Your task to perform on an android device: Open sound settings Image 0: 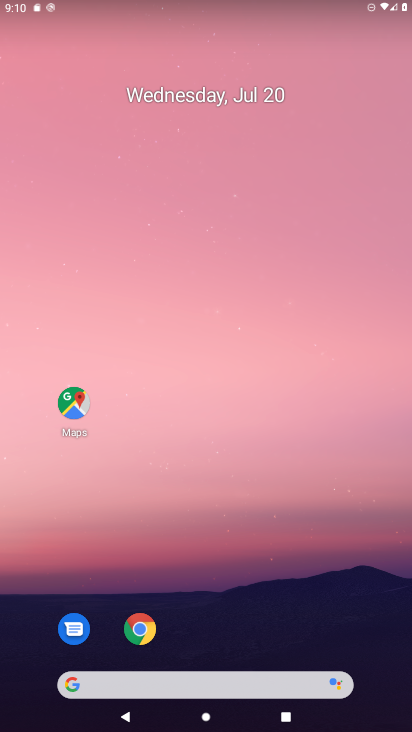
Step 0: drag from (357, 634) to (336, 65)
Your task to perform on an android device: Open sound settings Image 1: 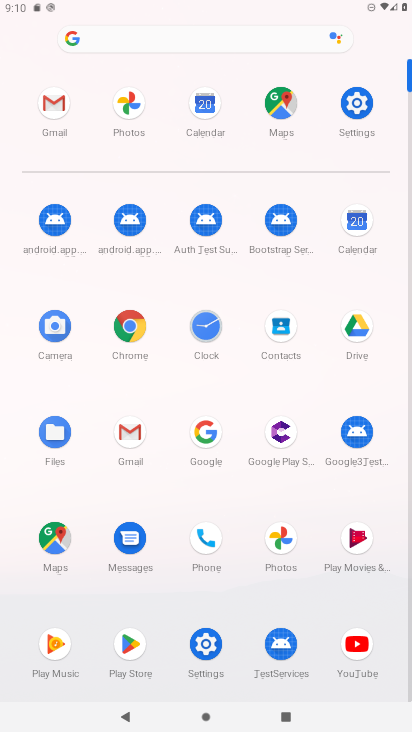
Step 1: click (205, 645)
Your task to perform on an android device: Open sound settings Image 2: 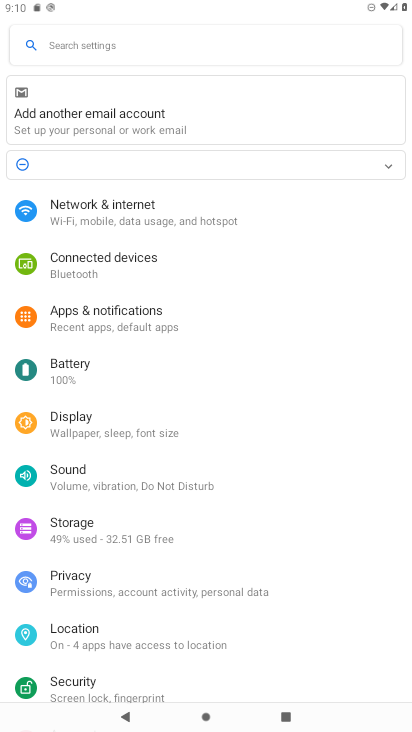
Step 2: click (93, 482)
Your task to perform on an android device: Open sound settings Image 3: 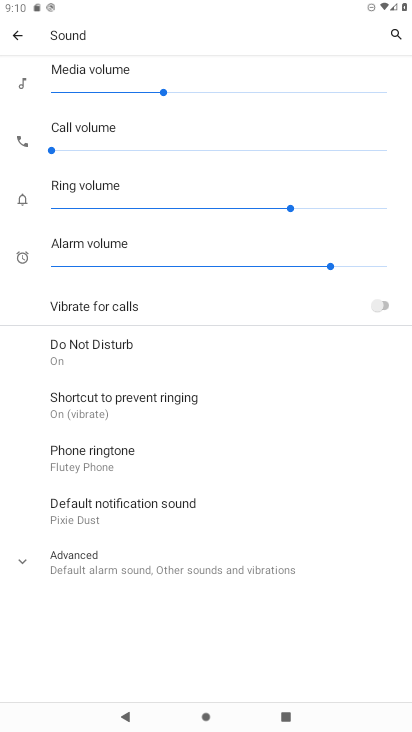
Step 3: click (20, 563)
Your task to perform on an android device: Open sound settings Image 4: 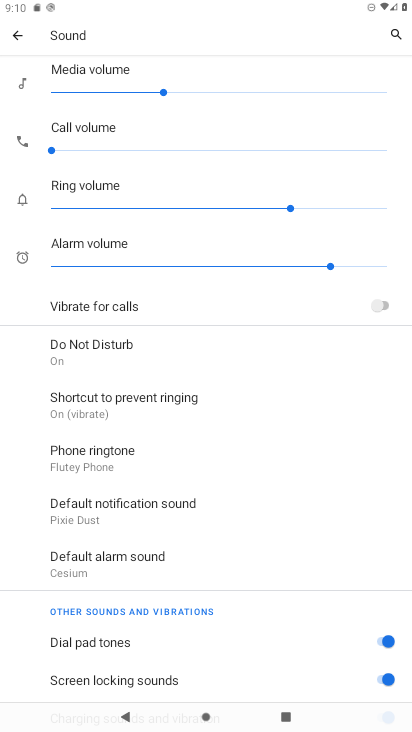
Step 4: task complete